Your task to perform on an android device: Open Maps and search for coffee Image 0: 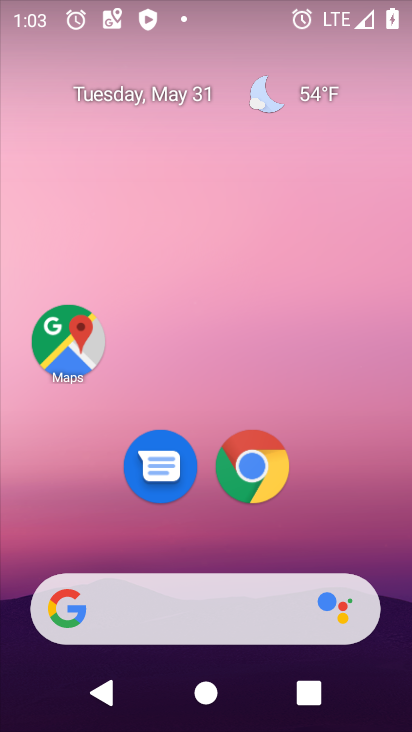
Step 0: click (68, 351)
Your task to perform on an android device: Open Maps and search for coffee Image 1: 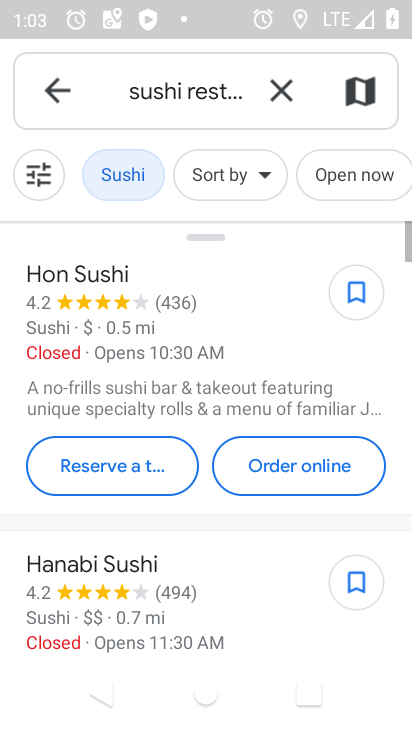
Step 1: click (280, 79)
Your task to perform on an android device: Open Maps and search for coffee Image 2: 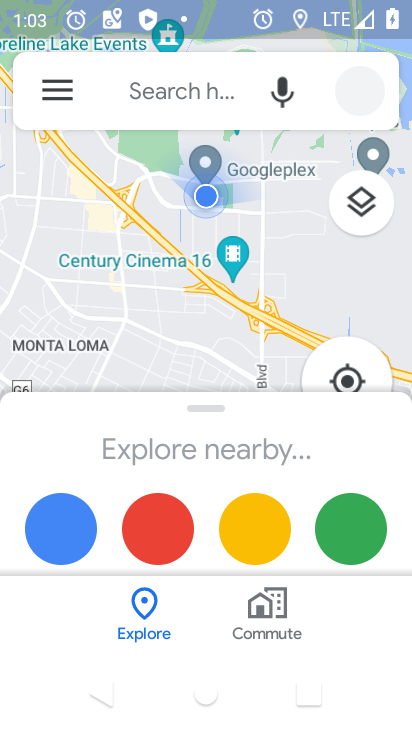
Step 2: click (176, 98)
Your task to perform on an android device: Open Maps and search for coffee Image 3: 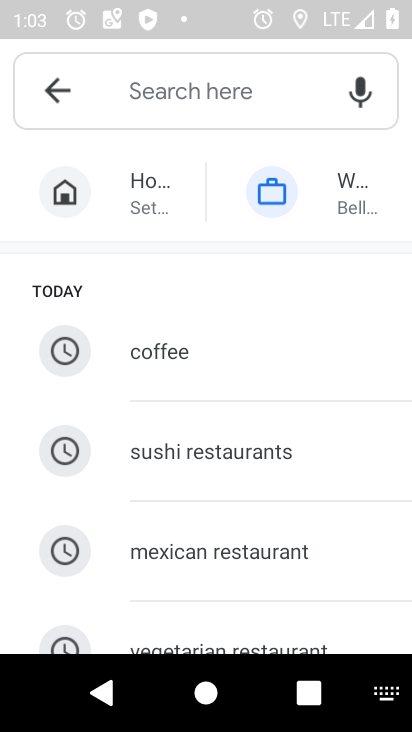
Step 3: click (186, 341)
Your task to perform on an android device: Open Maps and search for coffee Image 4: 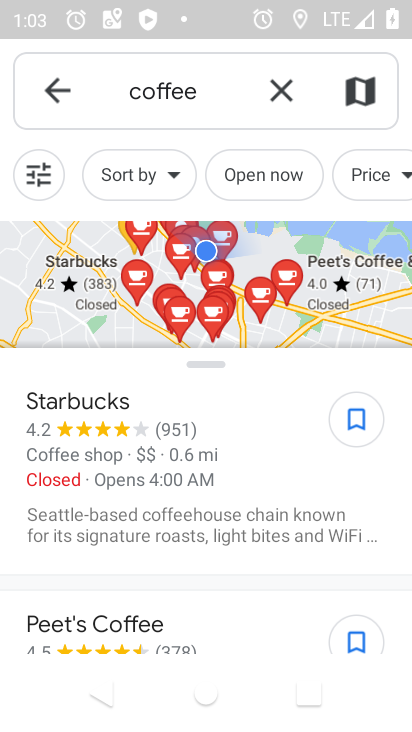
Step 4: task complete